Your task to perform on an android device: Is it going to rain today? Image 0: 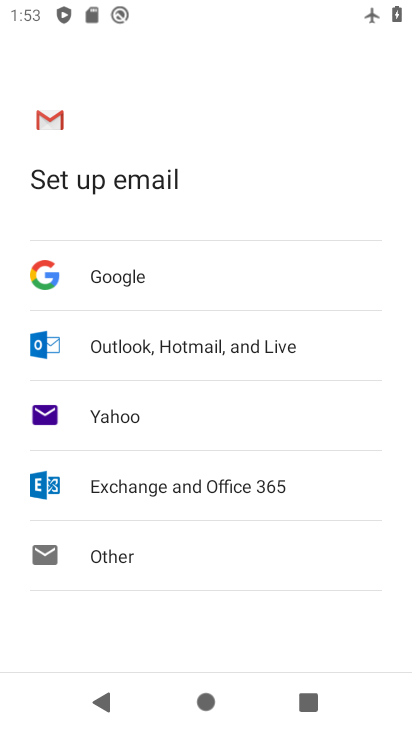
Step 0: press home button
Your task to perform on an android device: Is it going to rain today? Image 1: 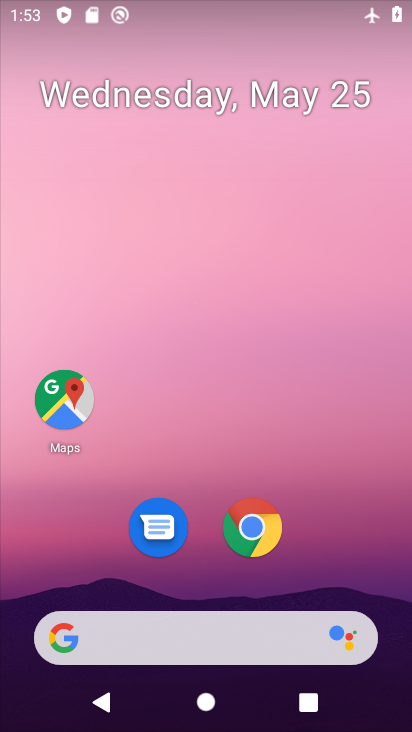
Step 1: drag from (329, 472) to (382, 49)
Your task to perform on an android device: Is it going to rain today? Image 2: 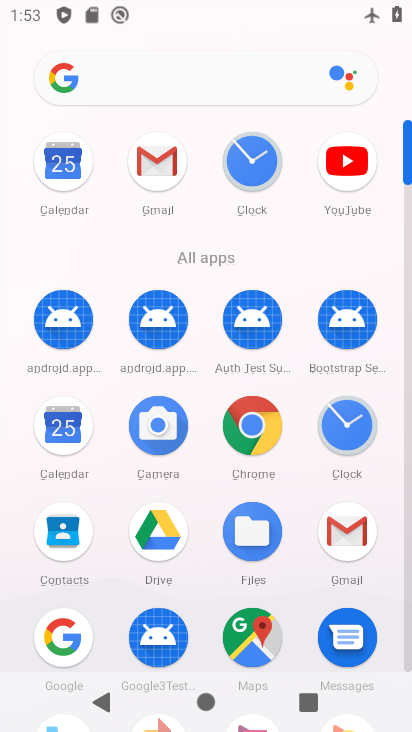
Step 2: click (176, 77)
Your task to perform on an android device: Is it going to rain today? Image 3: 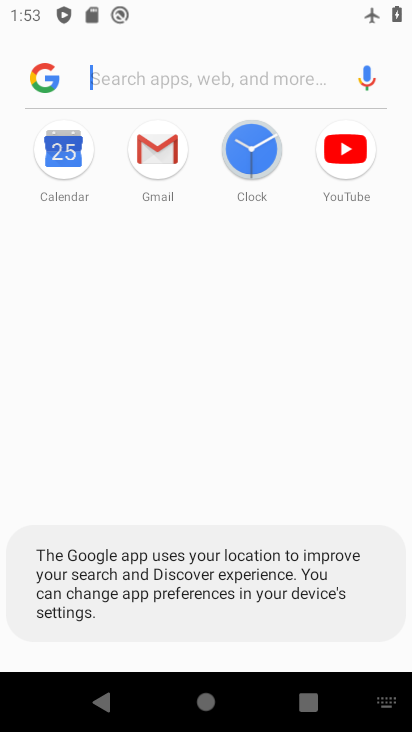
Step 3: click (125, 79)
Your task to perform on an android device: Is it going to rain today? Image 4: 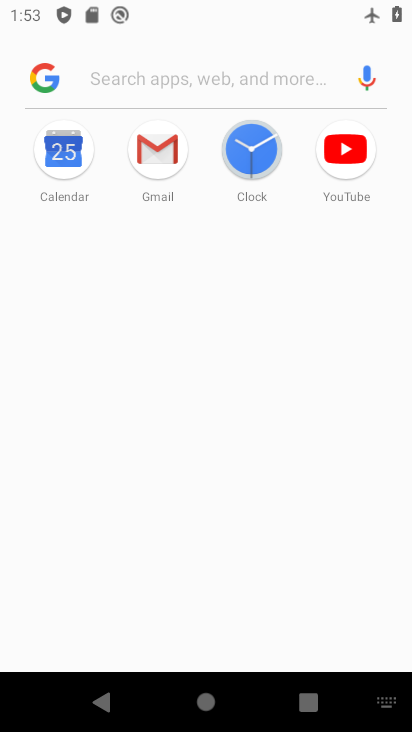
Step 4: type "weather"
Your task to perform on an android device: Is it going to rain today? Image 5: 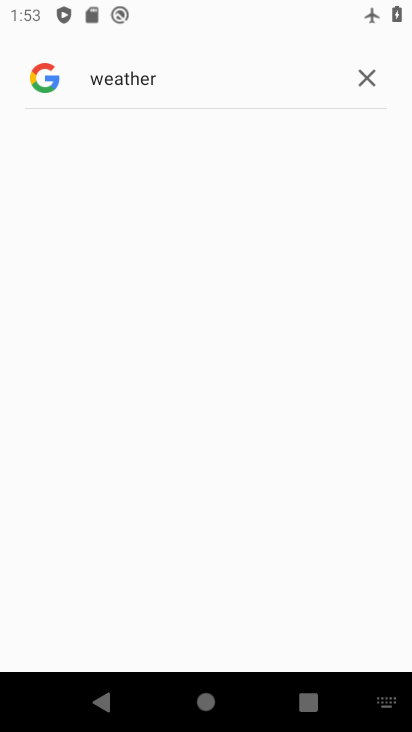
Step 5: drag from (355, 5) to (257, 478)
Your task to perform on an android device: Is it going to rain today? Image 6: 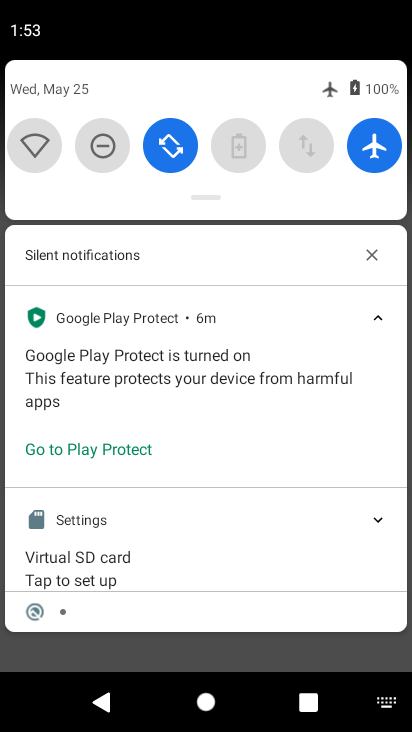
Step 6: click (364, 136)
Your task to perform on an android device: Is it going to rain today? Image 7: 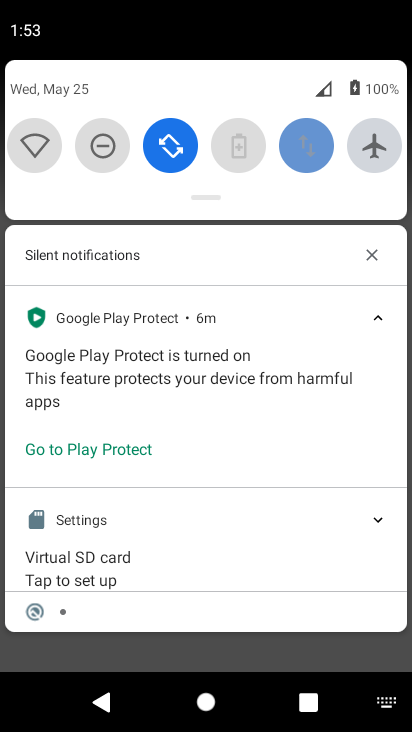
Step 7: click (215, 645)
Your task to perform on an android device: Is it going to rain today? Image 8: 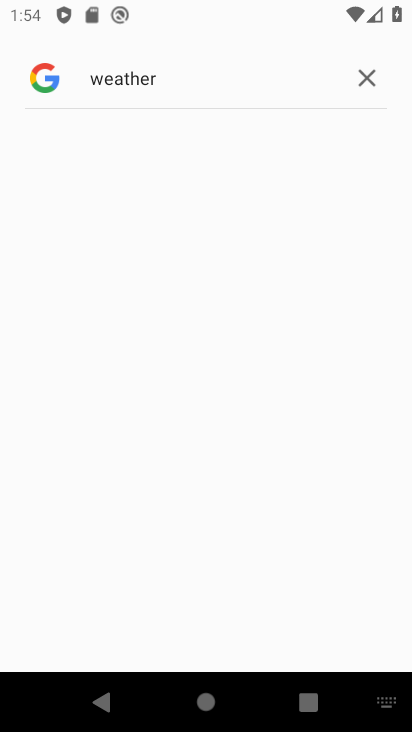
Step 8: press back button
Your task to perform on an android device: Is it going to rain today? Image 9: 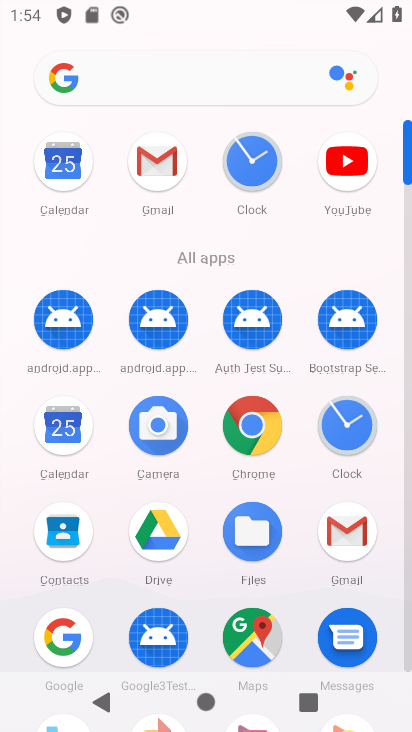
Step 9: press back button
Your task to perform on an android device: Is it going to rain today? Image 10: 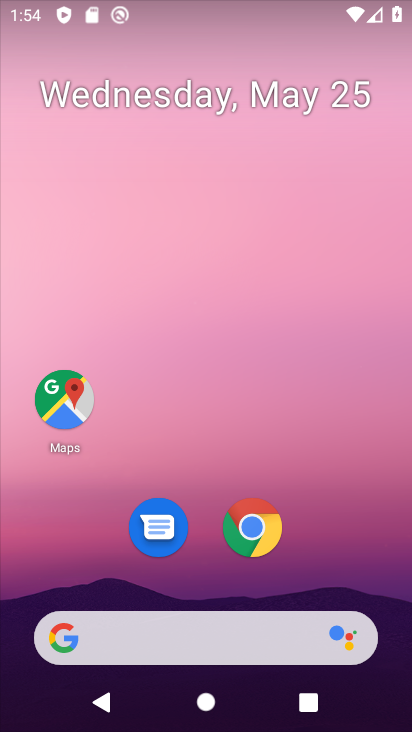
Step 10: click (163, 621)
Your task to perform on an android device: Is it going to rain today? Image 11: 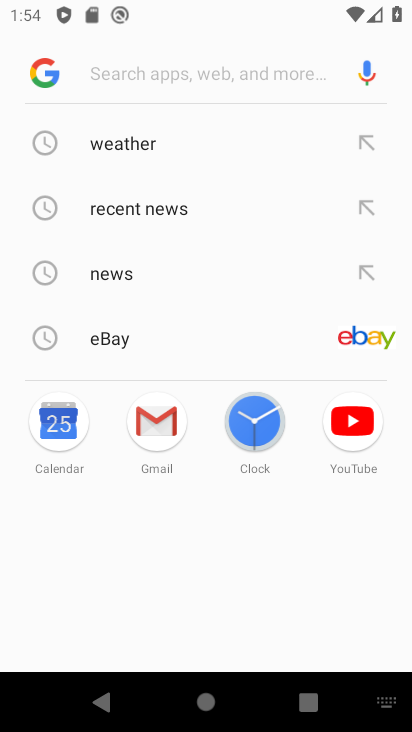
Step 11: click (125, 134)
Your task to perform on an android device: Is it going to rain today? Image 12: 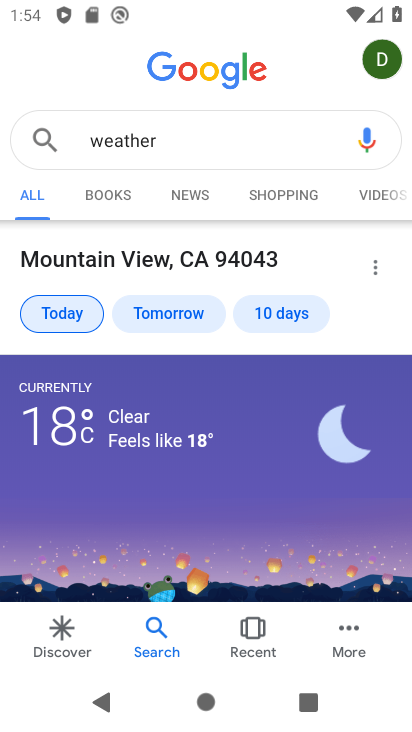
Step 12: task complete